Your task to perform on an android device: star an email in the gmail app Image 0: 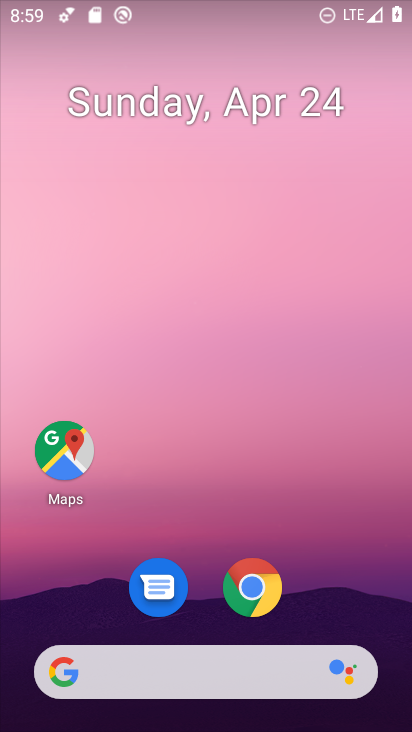
Step 0: drag from (361, 600) to (368, 210)
Your task to perform on an android device: star an email in the gmail app Image 1: 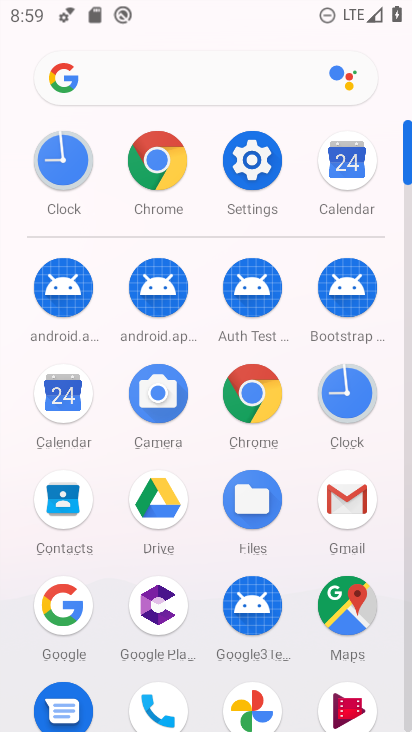
Step 1: click (351, 497)
Your task to perform on an android device: star an email in the gmail app Image 2: 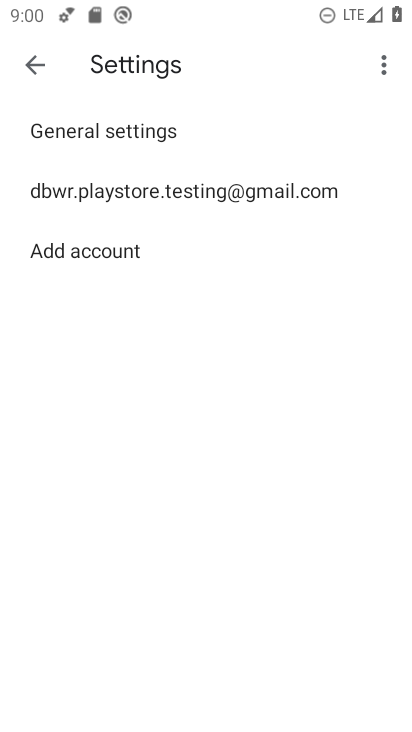
Step 2: click (18, 57)
Your task to perform on an android device: star an email in the gmail app Image 3: 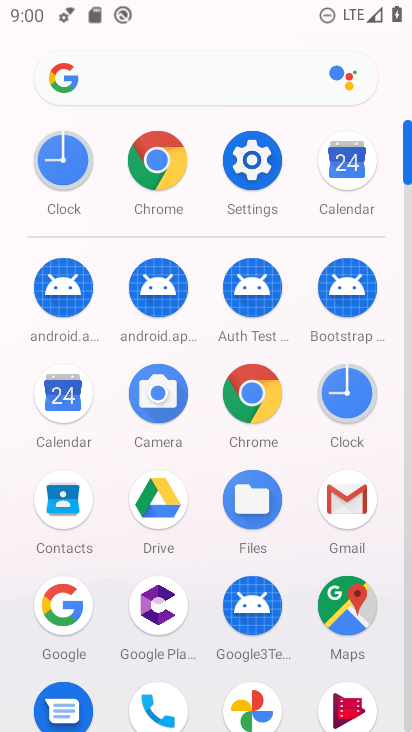
Step 3: click (324, 501)
Your task to perform on an android device: star an email in the gmail app Image 4: 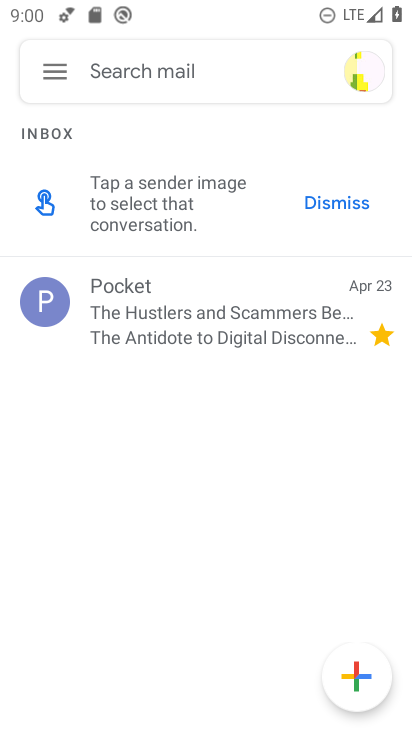
Step 4: click (58, 67)
Your task to perform on an android device: star an email in the gmail app Image 5: 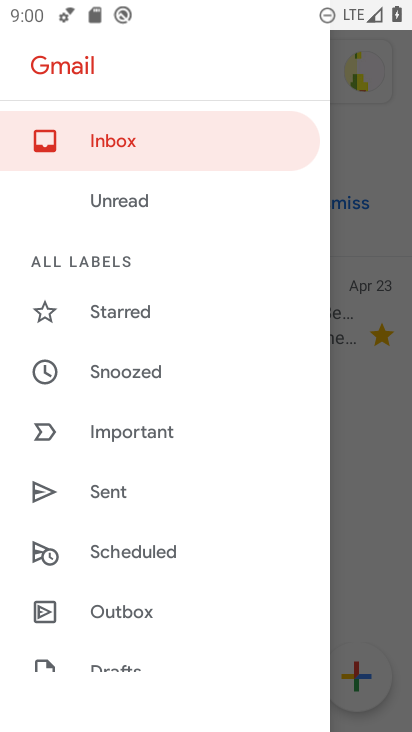
Step 5: drag from (223, 513) to (195, 198)
Your task to perform on an android device: star an email in the gmail app Image 6: 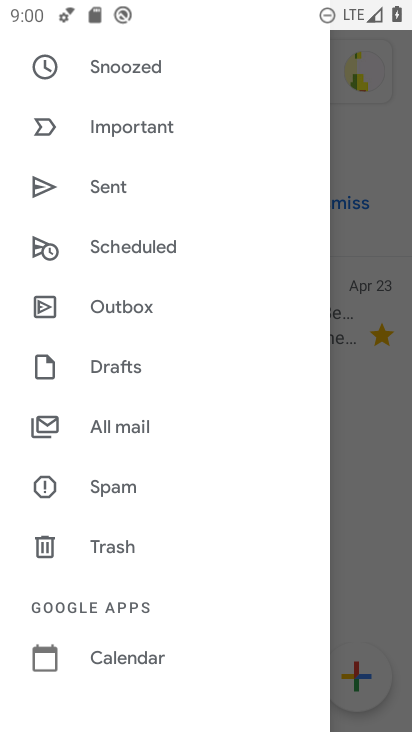
Step 6: click (139, 428)
Your task to perform on an android device: star an email in the gmail app Image 7: 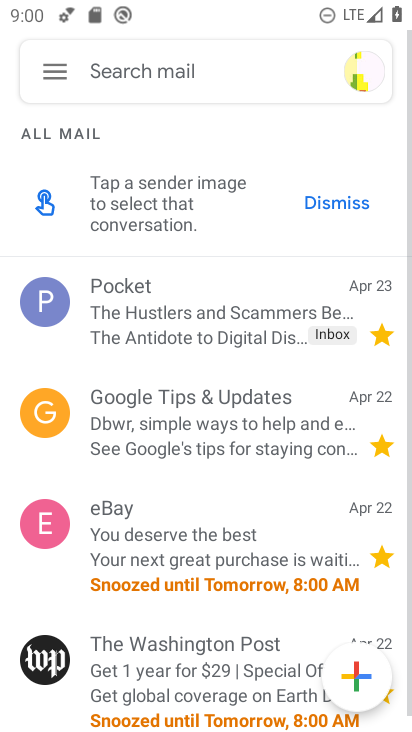
Step 7: task complete